Your task to perform on an android device: read, delete, or share a saved page in the chrome app Image 0: 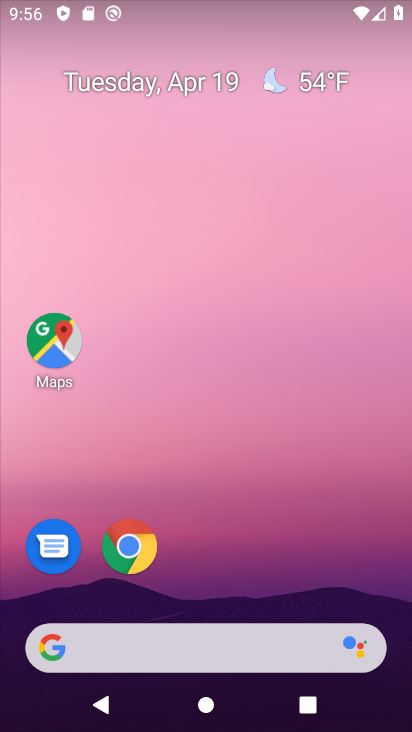
Step 0: click (126, 548)
Your task to perform on an android device: read, delete, or share a saved page in the chrome app Image 1: 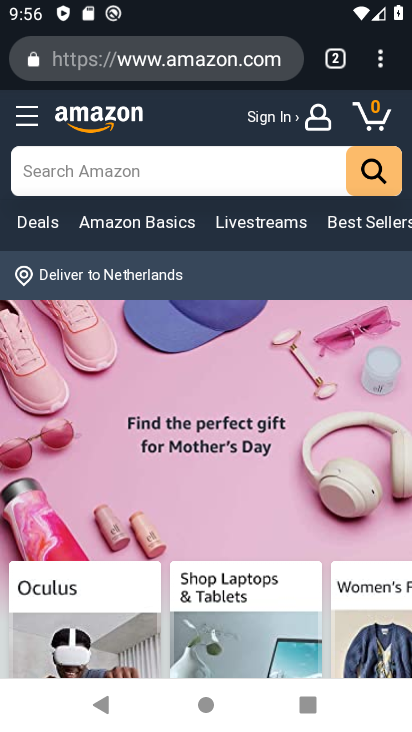
Step 1: click (376, 59)
Your task to perform on an android device: read, delete, or share a saved page in the chrome app Image 2: 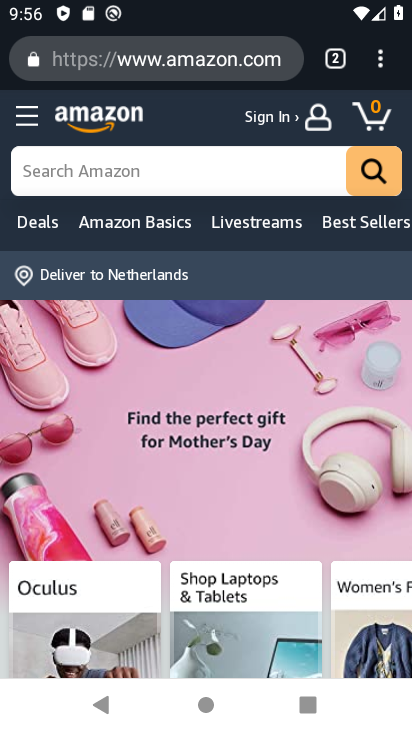
Step 2: click (376, 58)
Your task to perform on an android device: read, delete, or share a saved page in the chrome app Image 3: 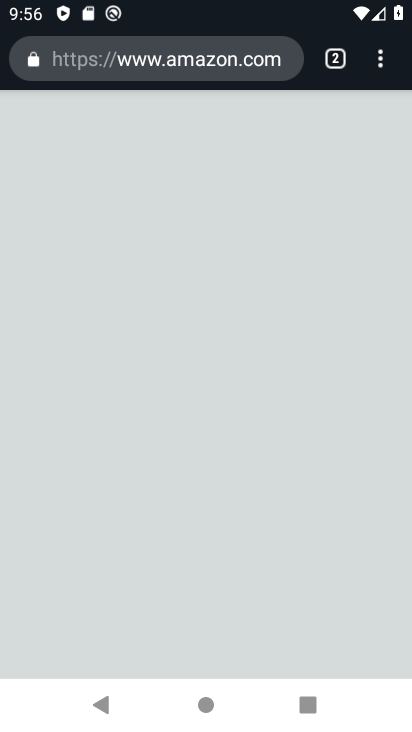
Step 3: click (376, 58)
Your task to perform on an android device: read, delete, or share a saved page in the chrome app Image 4: 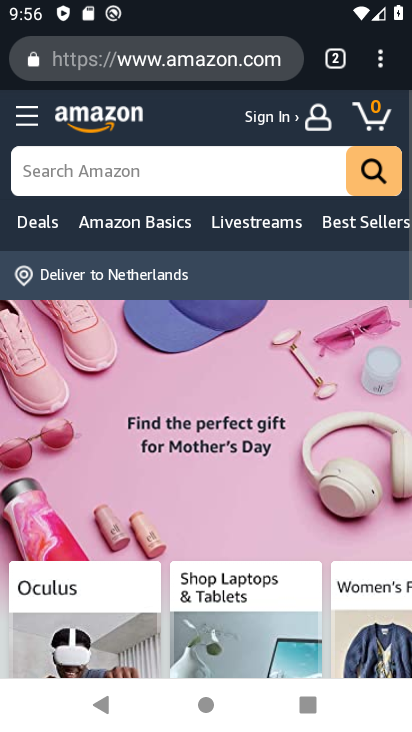
Step 4: click (376, 58)
Your task to perform on an android device: read, delete, or share a saved page in the chrome app Image 5: 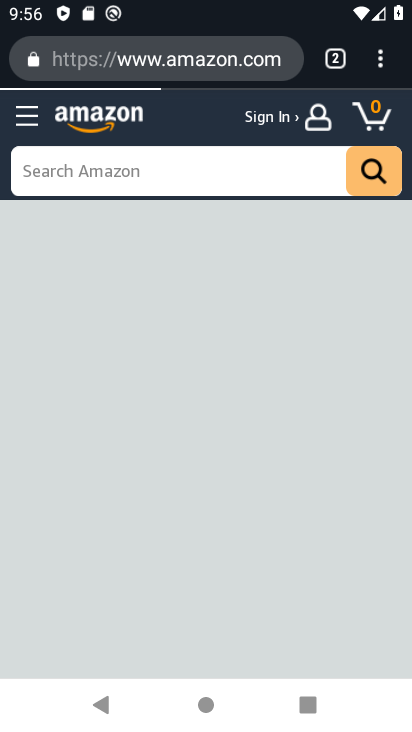
Step 5: click (376, 58)
Your task to perform on an android device: read, delete, or share a saved page in the chrome app Image 6: 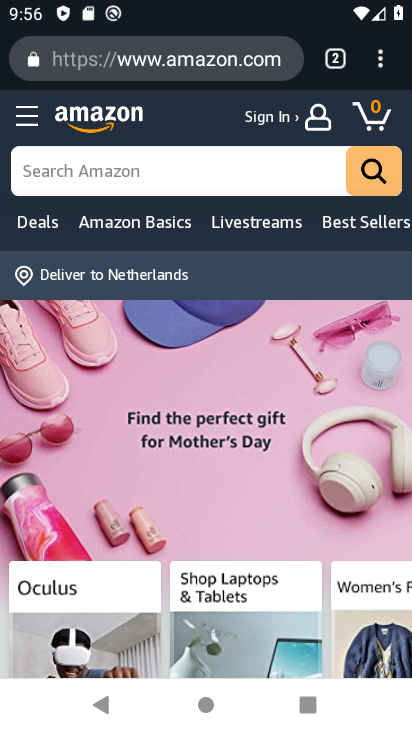
Step 6: click (380, 59)
Your task to perform on an android device: read, delete, or share a saved page in the chrome app Image 7: 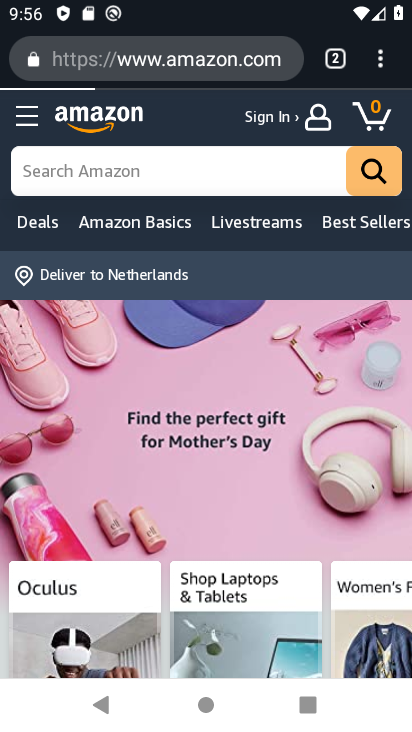
Step 7: click (380, 59)
Your task to perform on an android device: read, delete, or share a saved page in the chrome app Image 8: 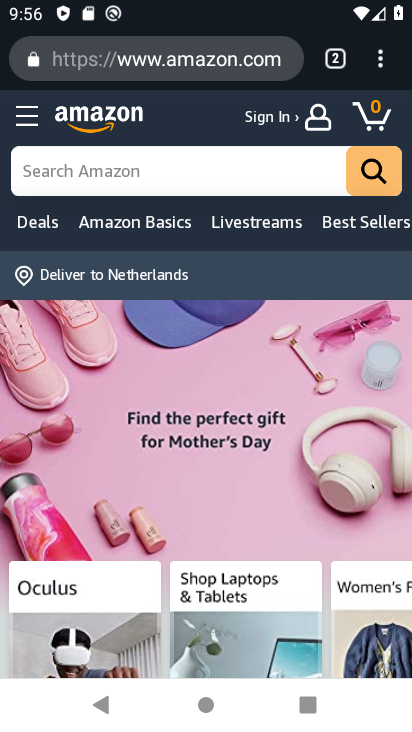
Step 8: click (380, 59)
Your task to perform on an android device: read, delete, or share a saved page in the chrome app Image 9: 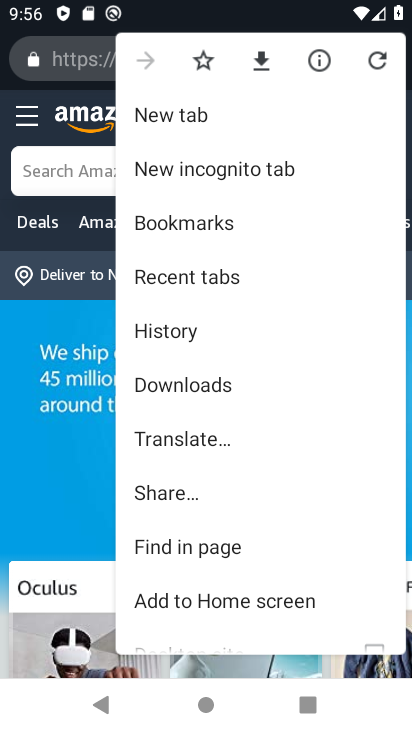
Step 9: drag from (319, 541) to (289, 137)
Your task to perform on an android device: read, delete, or share a saved page in the chrome app Image 10: 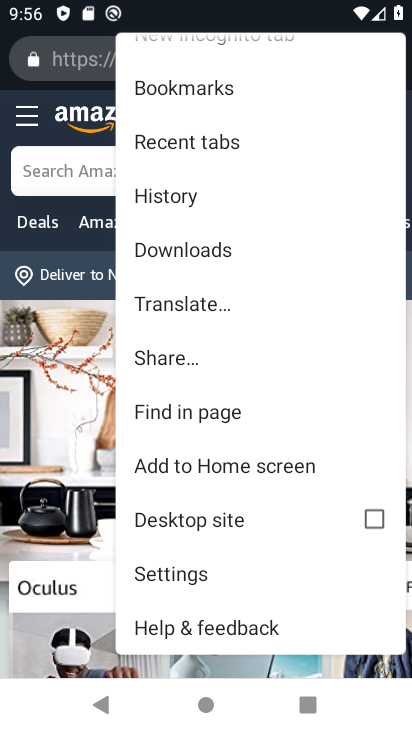
Step 10: click (219, 245)
Your task to perform on an android device: read, delete, or share a saved page in the chrome app Image 11: 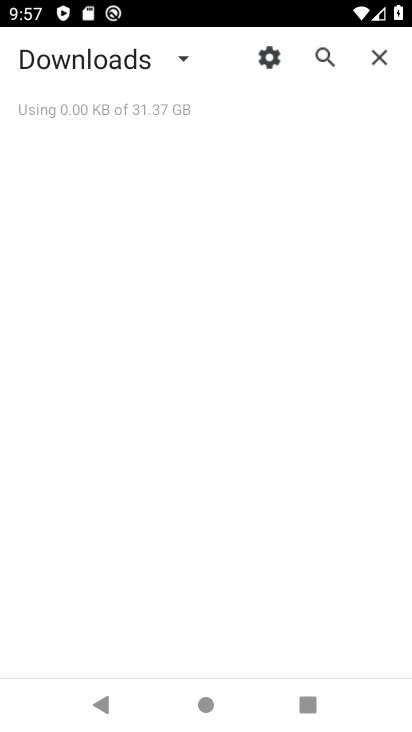
Step 11: task complete